Your task to perform on an android device: Open internet settings Image 0: 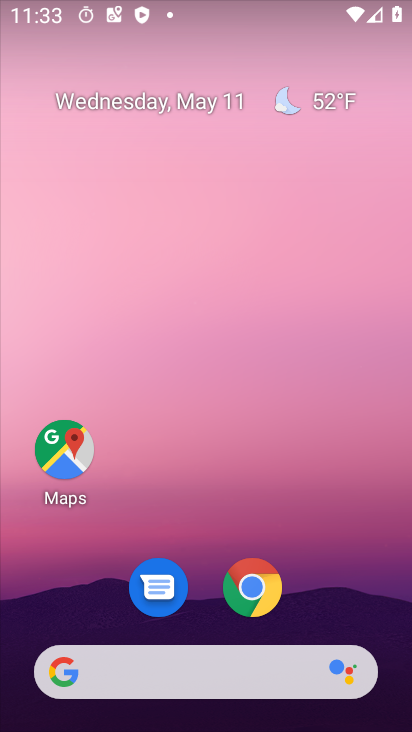
Step 0: drag from (309, 692) to (357, 134)
Your task to perform on an android device: Open internet settings Image 1: 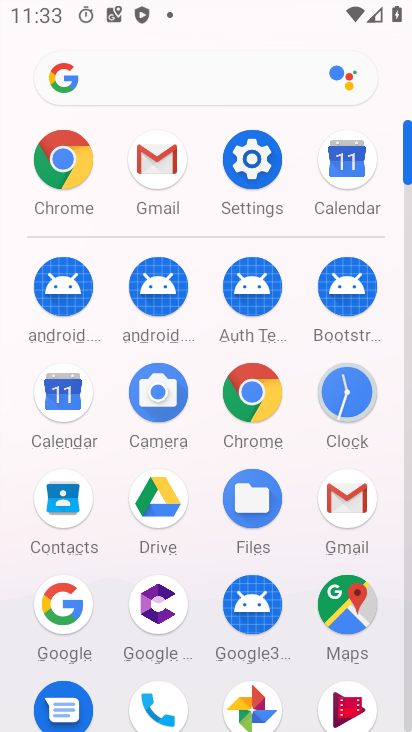
Step 1: click (265, 177)
Your task to perform on an android device: Open internet settings Image 2: 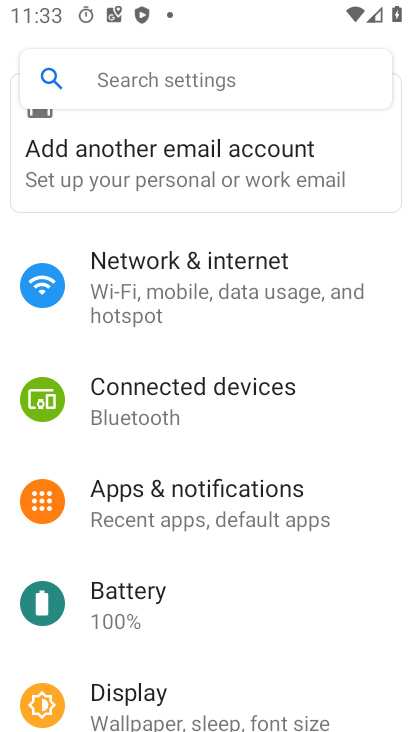
Step 2: click (179, 73)
Your task to perform on an android device: Open internet settings Image 3: 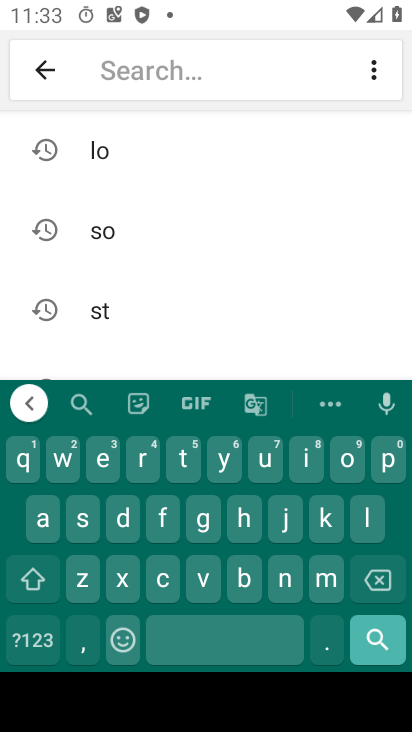
Step 3: click (37, 70)
Your task to perform on an android device: Open internet settings Image 4: 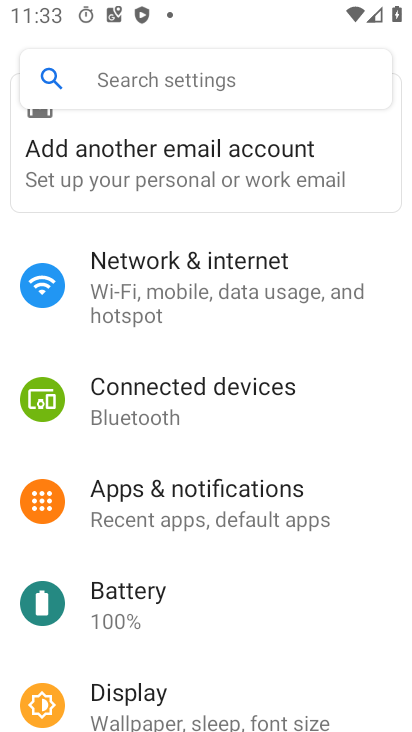
Step 4: click (132, 284)
Your task to perform on an android device: Open internet settings Image 5: 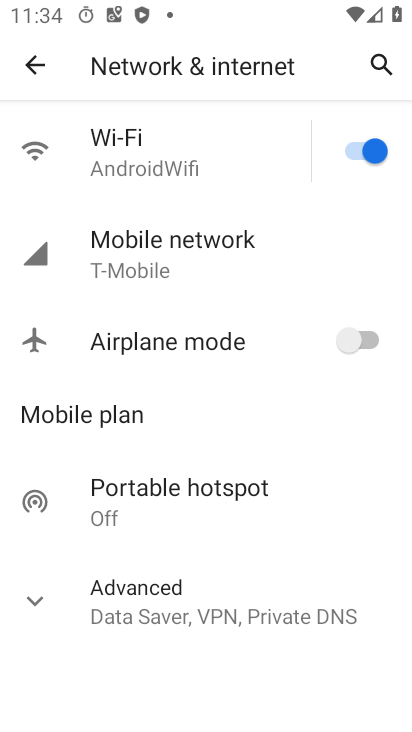
Step 5: task complete